Your task to perform on an android device: find photos in the google photos app Image 0: 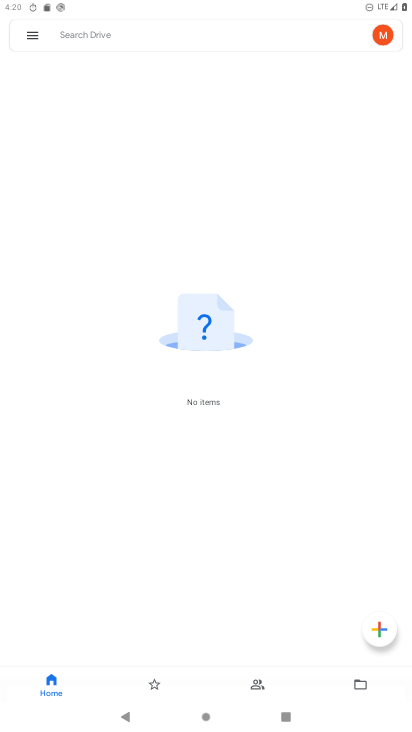
Step 0: press home button
Your task to perform on an android device: find photos in the google photos app Image 1: 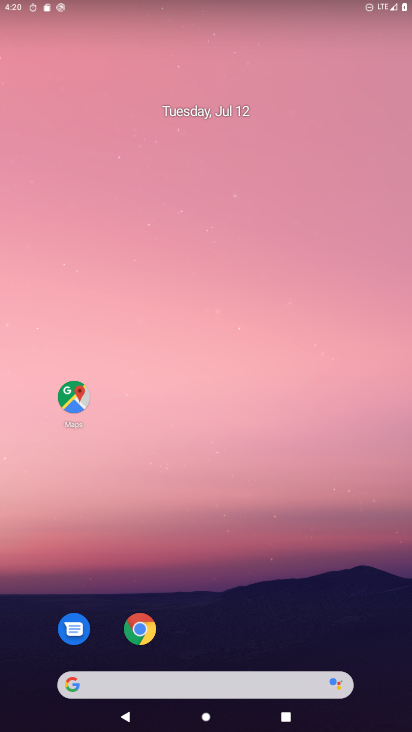
Step 1: drag from (338, 566) to (388, 32)
Your task to perform on an android device: find photos in the google photos app Image 2: 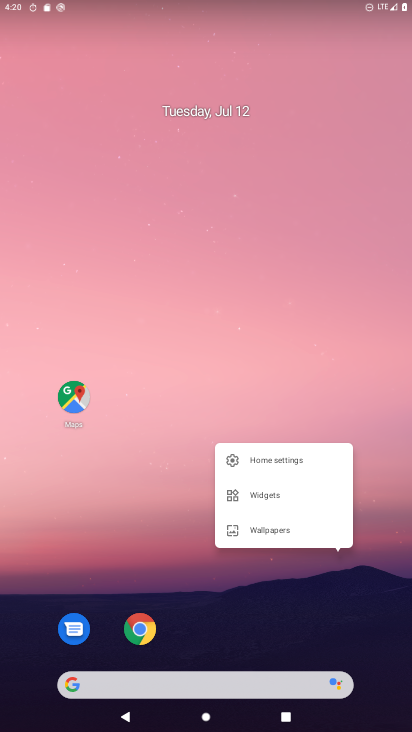
Step 2: click (192, 545)
Your task to perform on an android device: find photos in the google photos app Image 3: 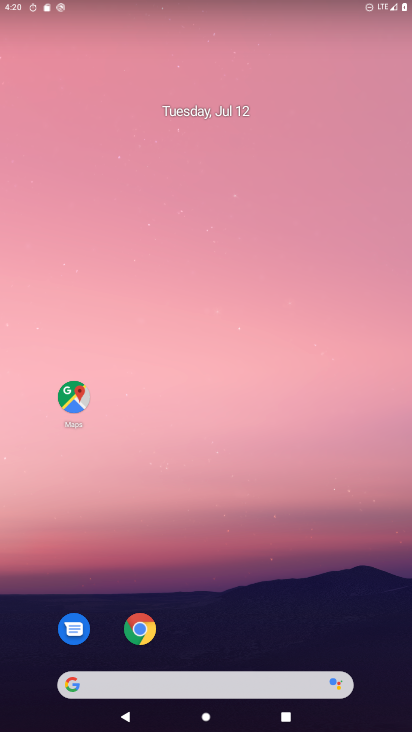
Step 3: drag from (192, 545) to (178, 58)
Your task to perform on an android device: find photos in the google photos app Image 4: 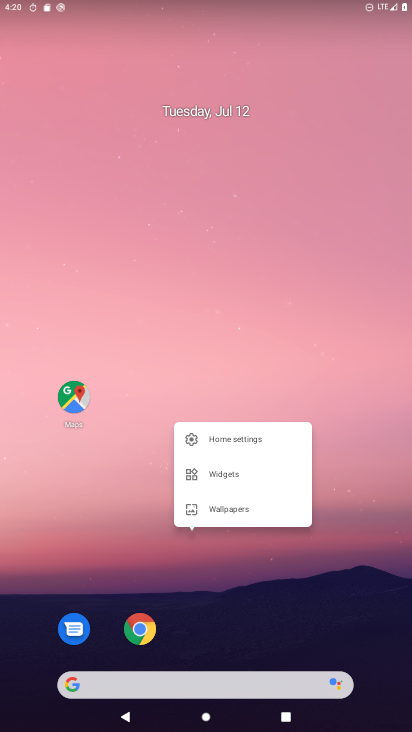
Step 4: click (331, 301)
Your task to perform on an android device: find photos in the google photos app Image 5: 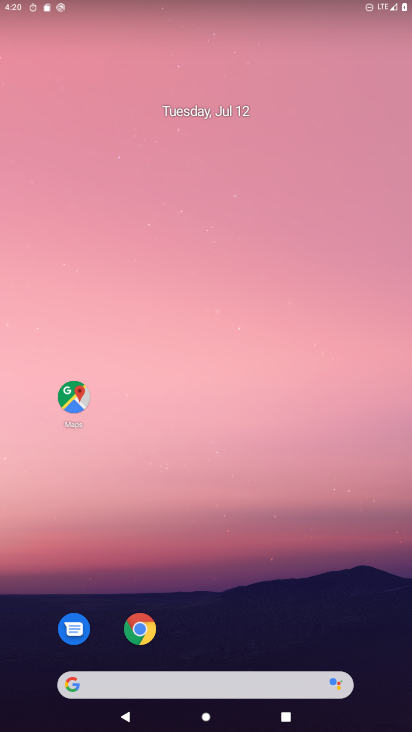
Step 5: drag from (340, 608) to (283, 220)
Your task to perform on an android device: find photos in the google photos app Image 6: 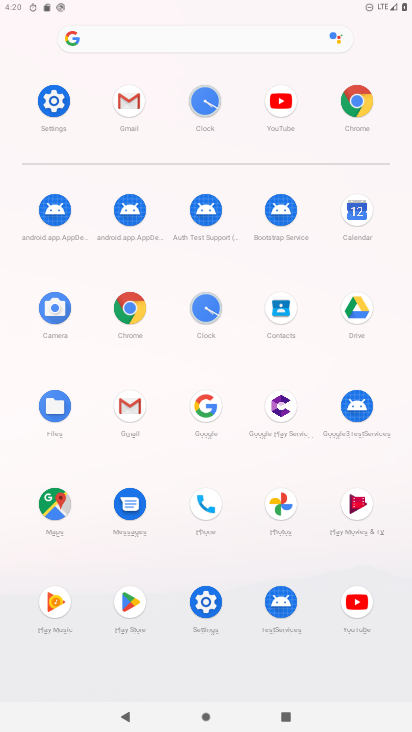
Step 6: click (295, 516)
Your task to perform on an android device: find photos in the google photos app Image 7: 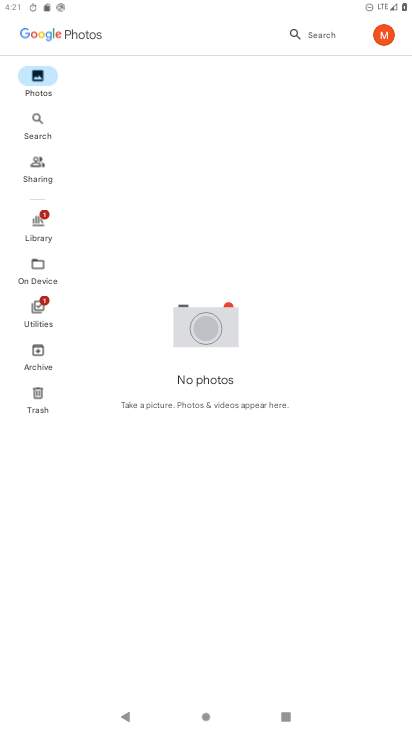
Step 7: task complete